Your task to perform on an android device: open a bookmark in the chrome app Image 0: 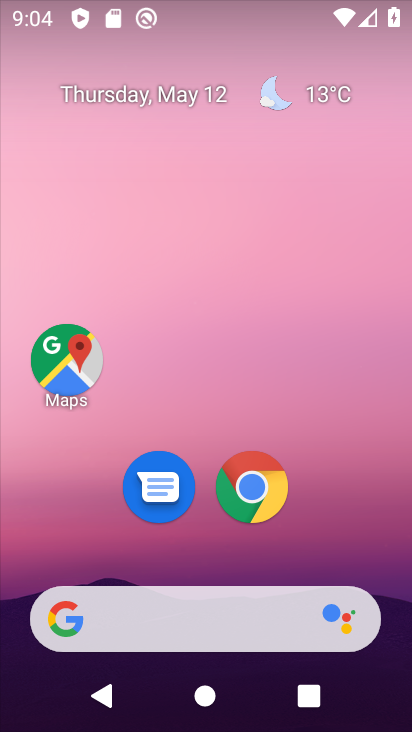
Step 0: click (251, 498)
Your task to perform on an android device: open a bookmark in the chrome app Image 1: 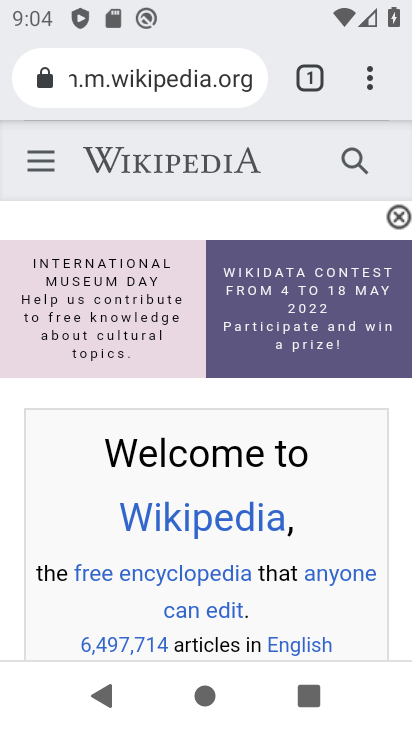
Step 1: click (347, 74)
Your task to perform on an android device: open a bookmark in the chrome app Image 2: 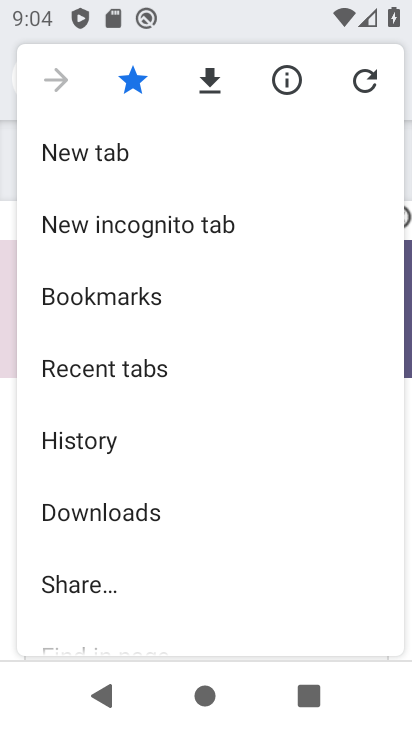
Step 2: click (165, 302)
Your task to perform on an android device: open a bookmark in the chrome app Image 3: 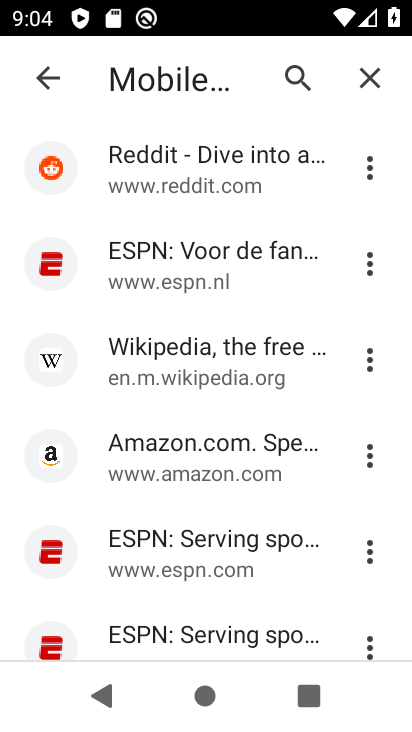
Step 3: click (151, 538)
Your task to perform on an android device: open a bookmark in the chrome app Image 4: 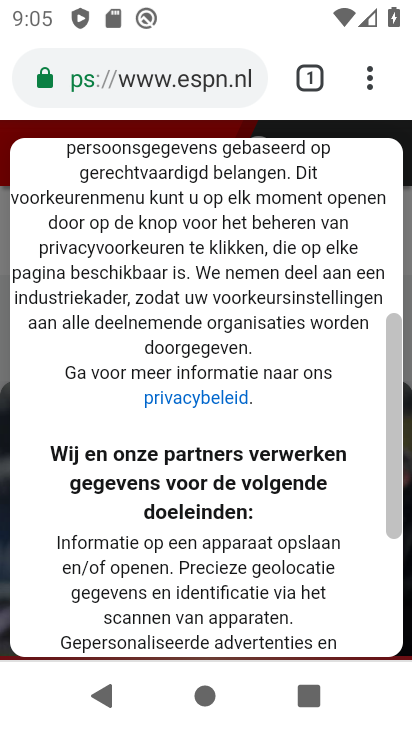
Step 4: task complete